Your task to perform on an android device: install app "Gboard" Image 0: 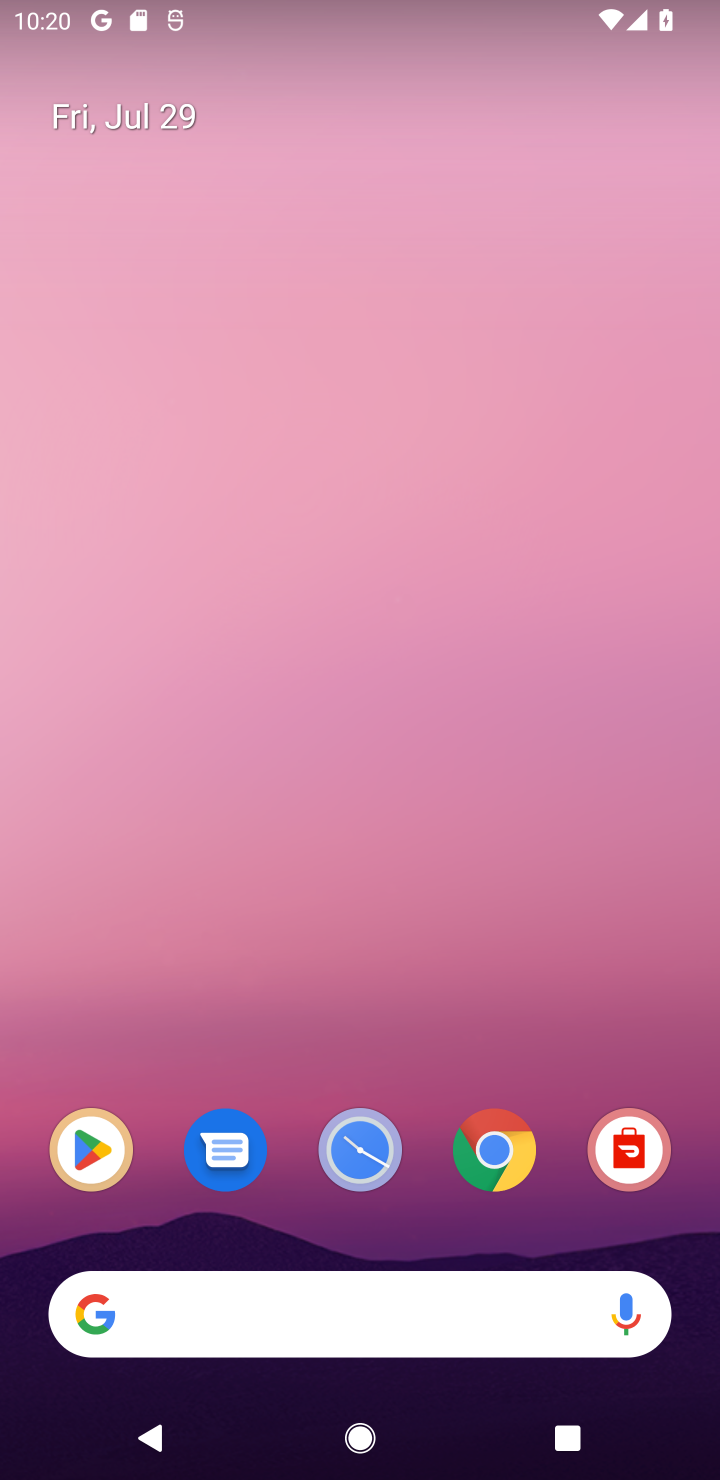
Step 0: click (111, 1142)
Your task to perform on an android device: install app "Gboard" Image 1: 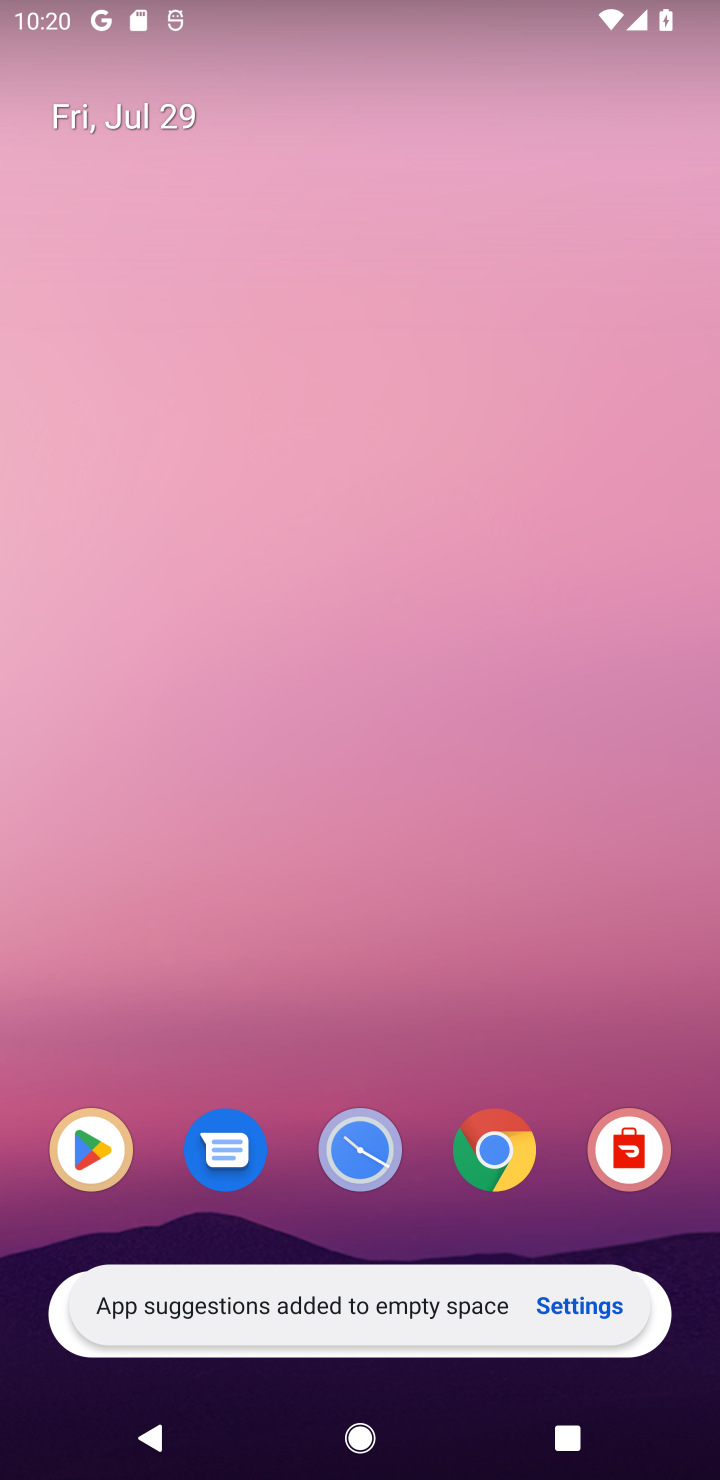
Step 1: click (88, 1154)
Your task to perform on an android device: install app "Gboard" Image 2: 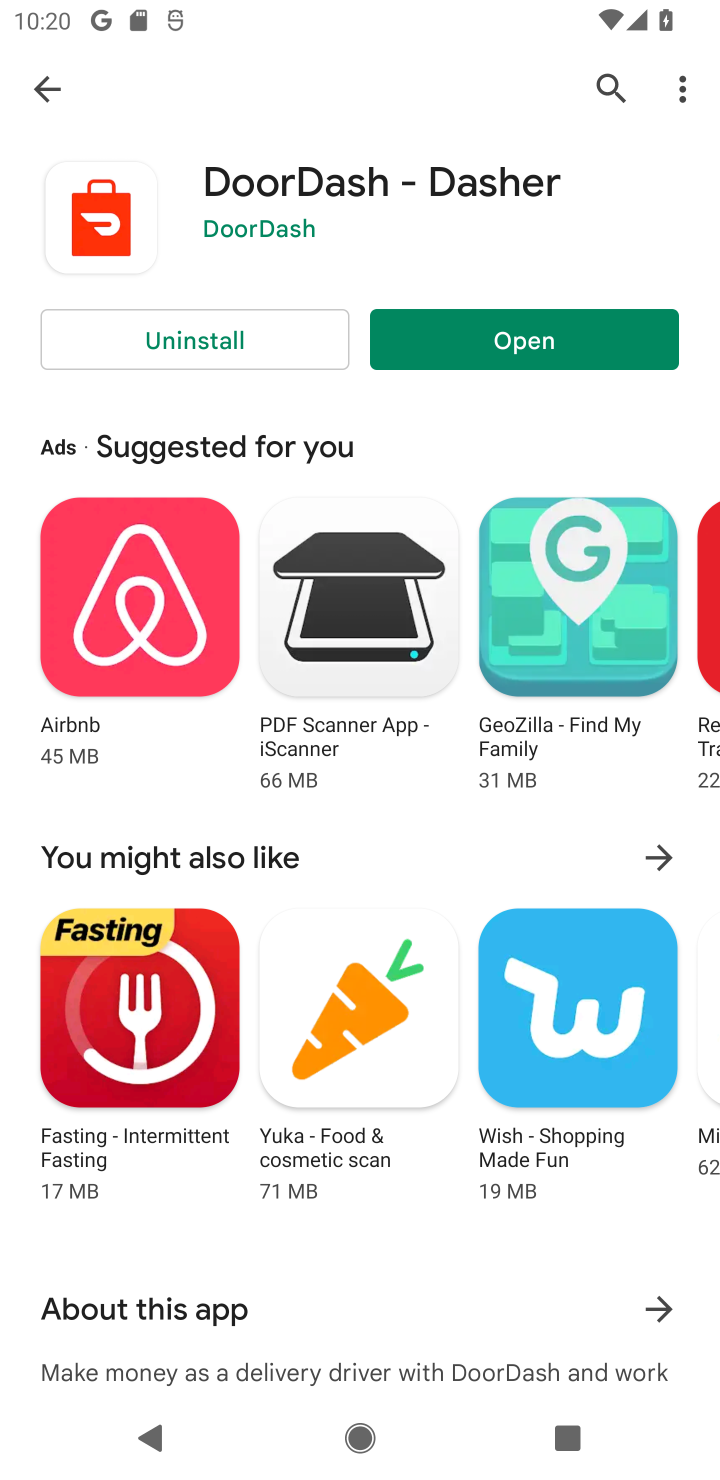
Step 2: click (611, 93)
Your task to perform on an android device: install app "Gboard" Image 3: 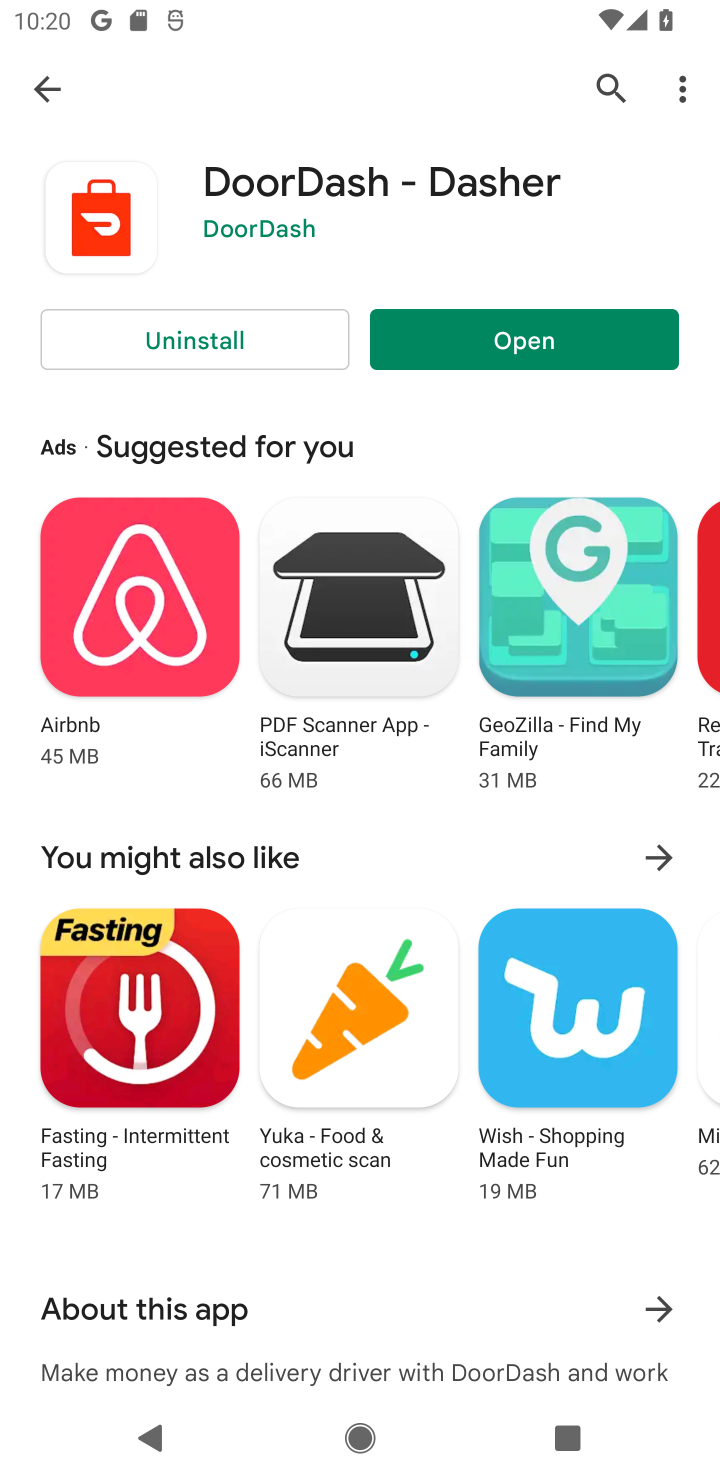
Step 3: click (613, 76)
Your task to perform on an android device: install app "Gboard" Image 4: 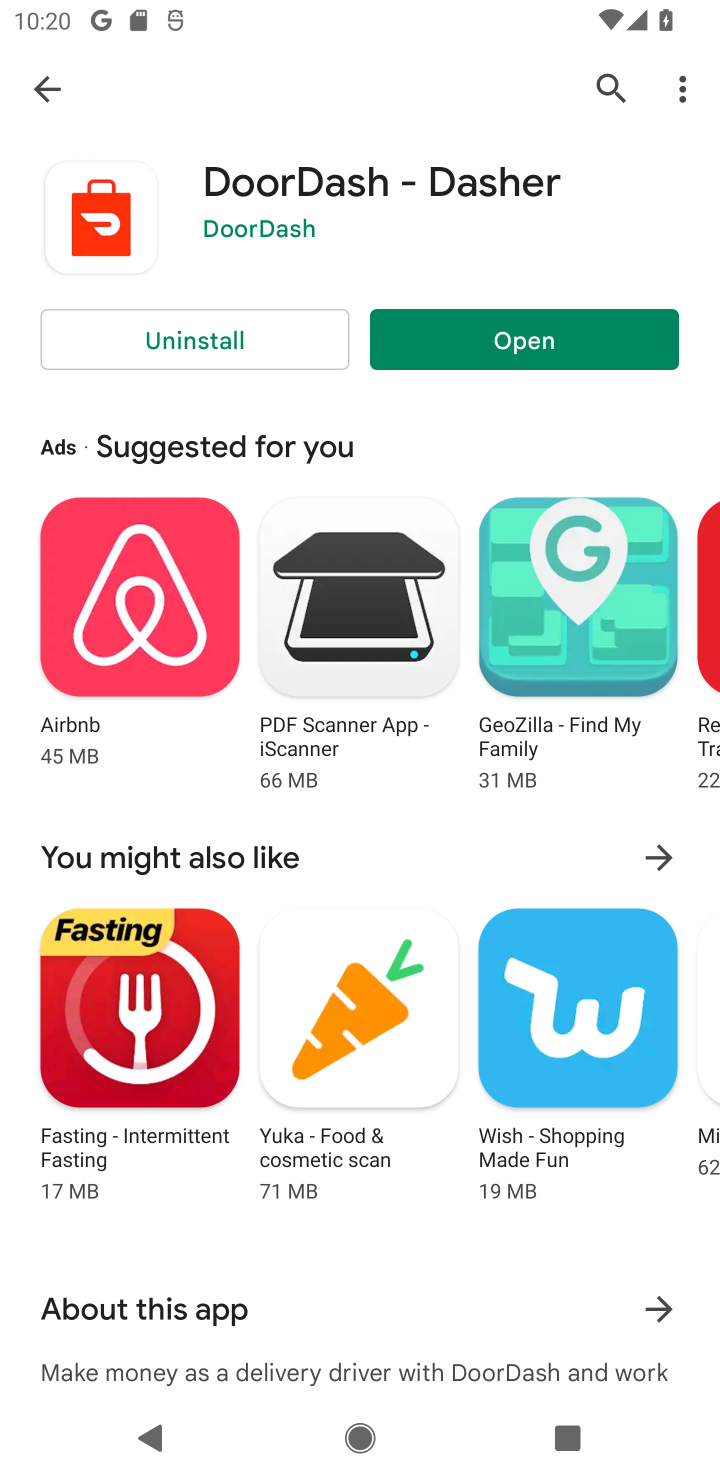
Step 4: click (62, 82)
Your task to perform on an android device: install app "Gboard" Image 5: 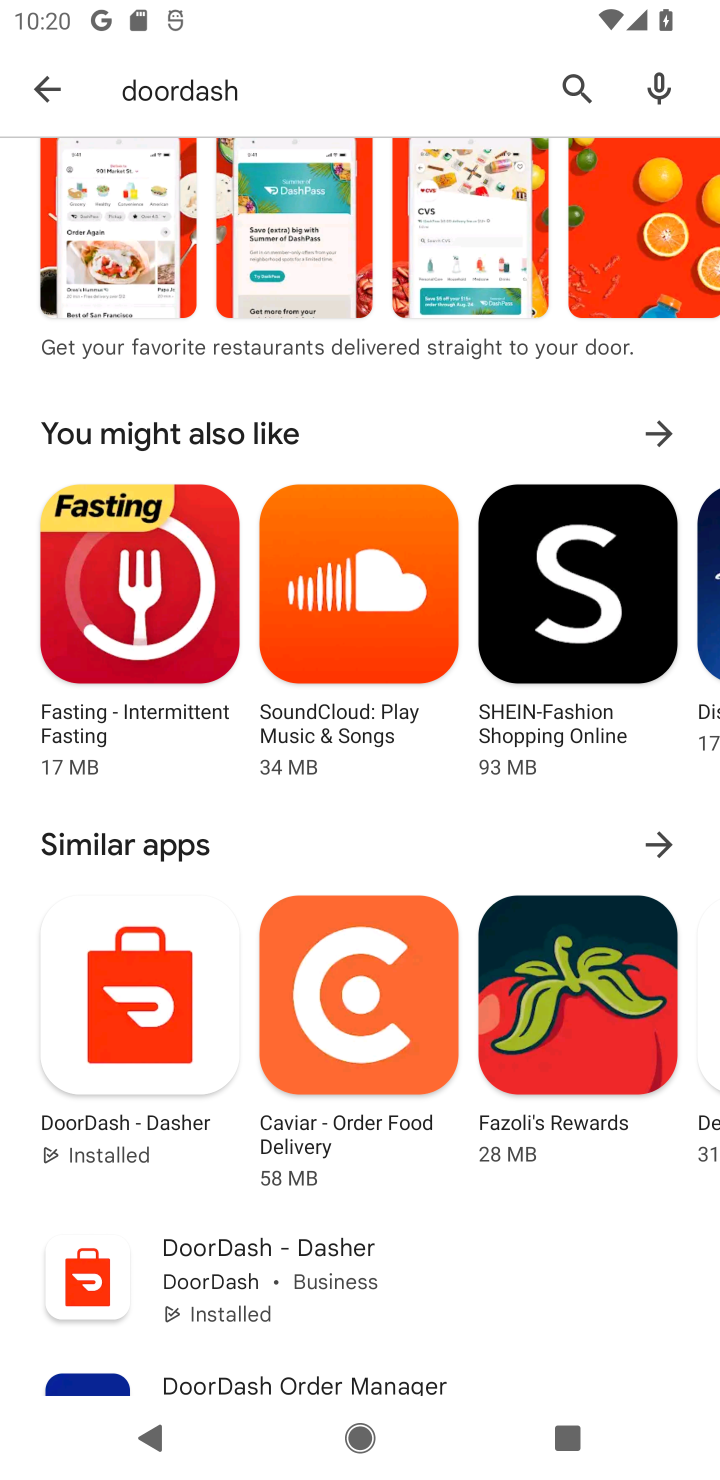
Step 5: click (580, 88)
Your task to perform on an android device: install app "Gboard" Image 6: 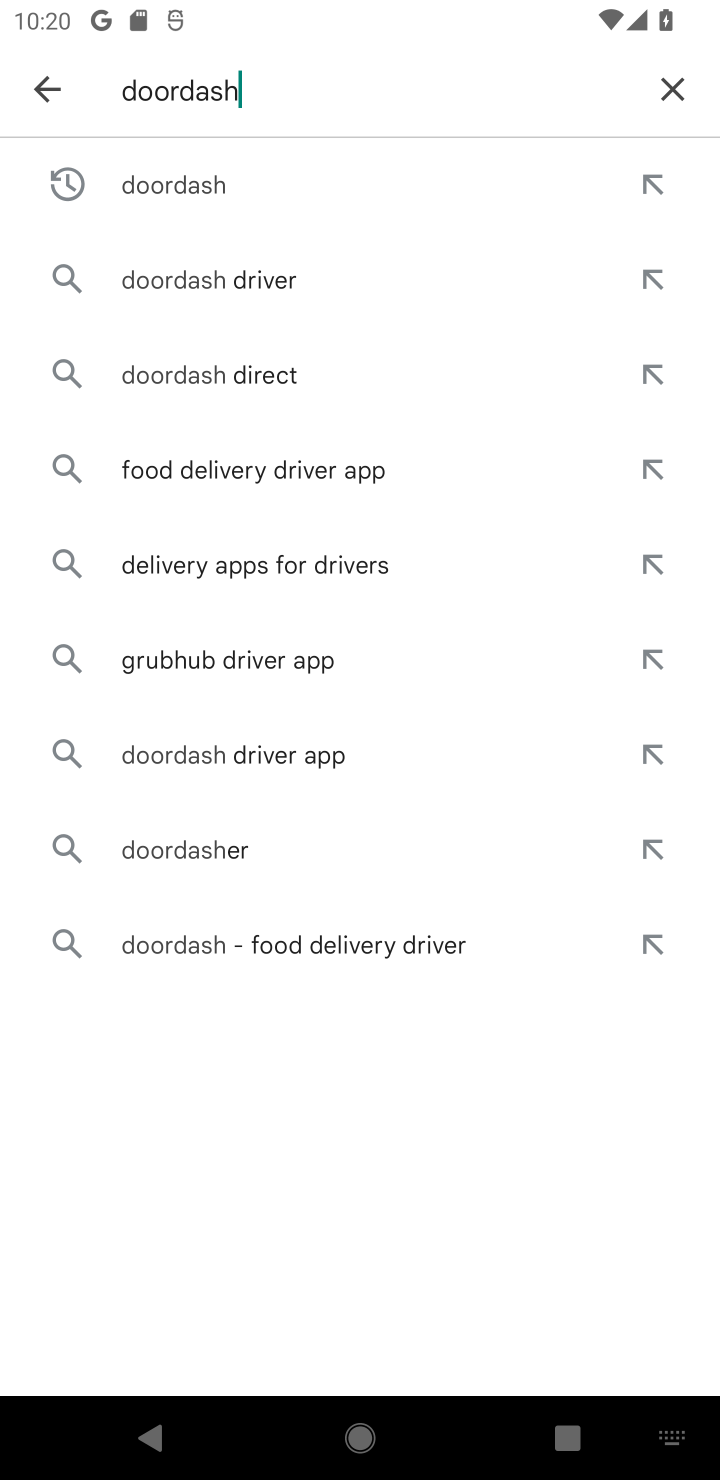
Step 6: click (678, 73)
Your task to perform on an android device: install app "Gboard" Image 7: 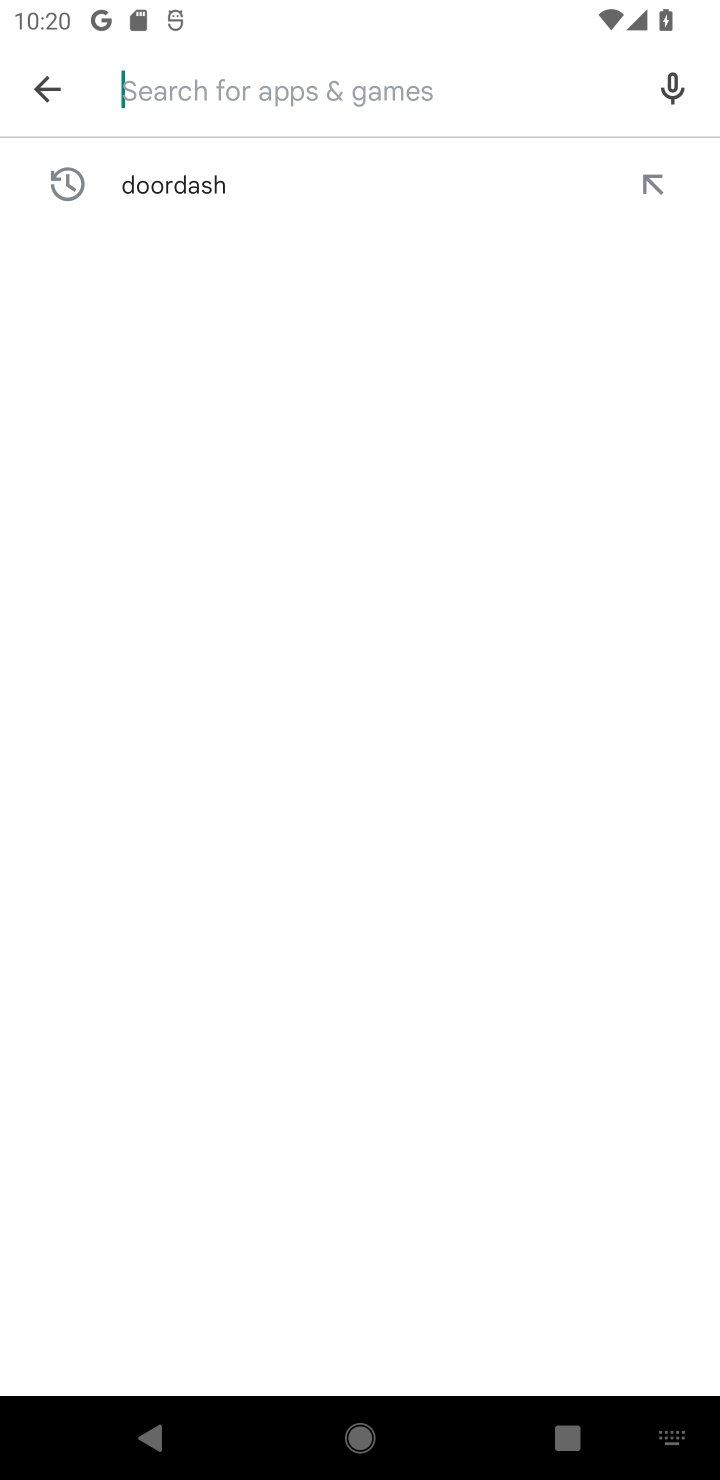
Step 7: click (199, 83)
Your task to perform on an android device: install app "Gboard" Image 8: 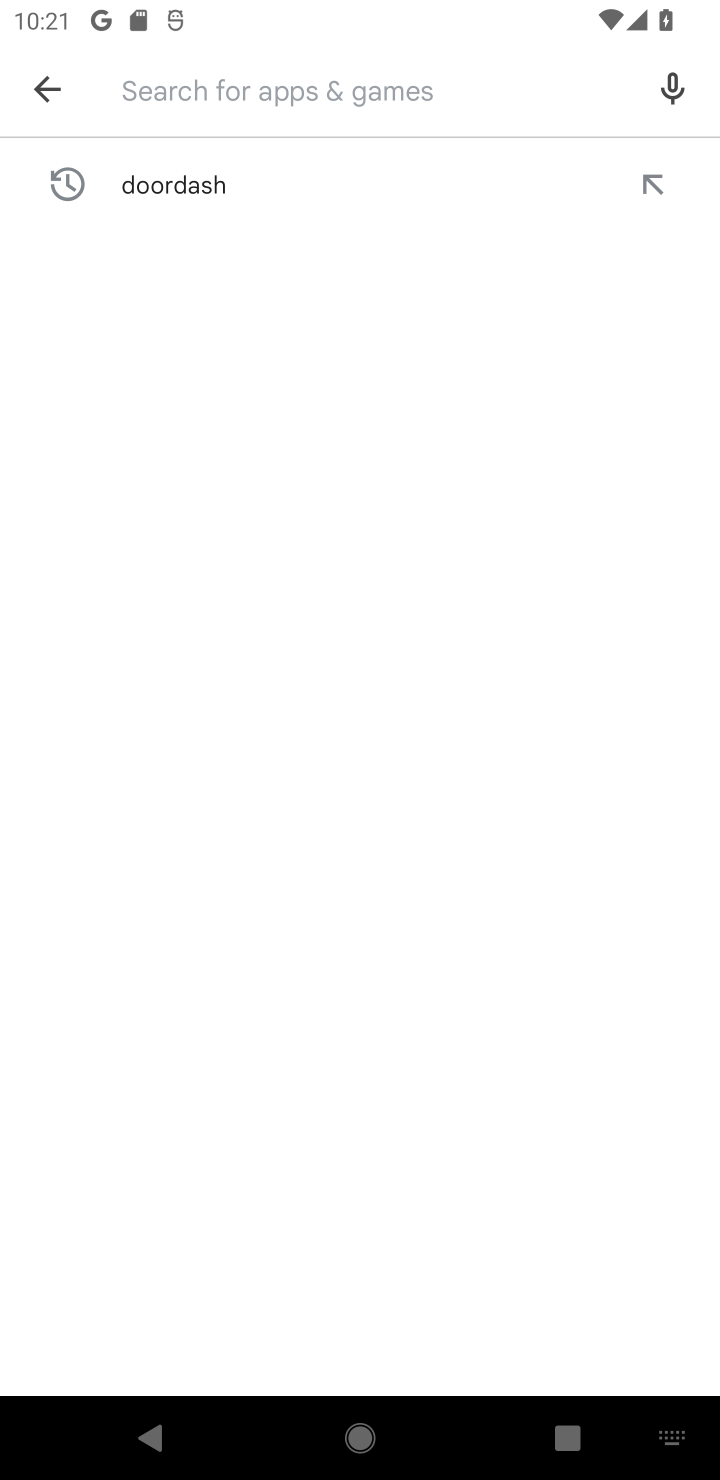
Step 8: type "gboard"
Your task to perform on an android device: install app "Gboard" Image 9: 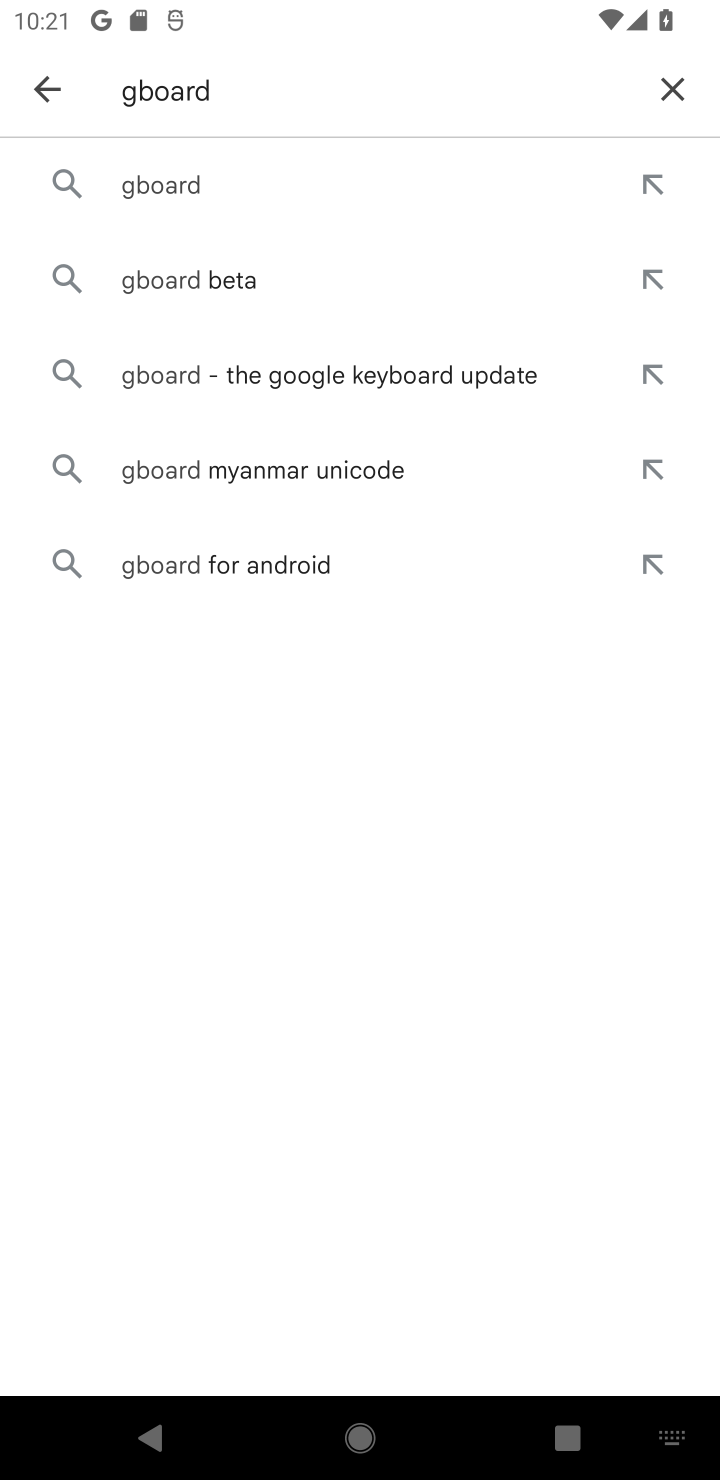
Step 9: click (188, 164)
Your task to perform on an android device: install app "Gboard" Image 10: 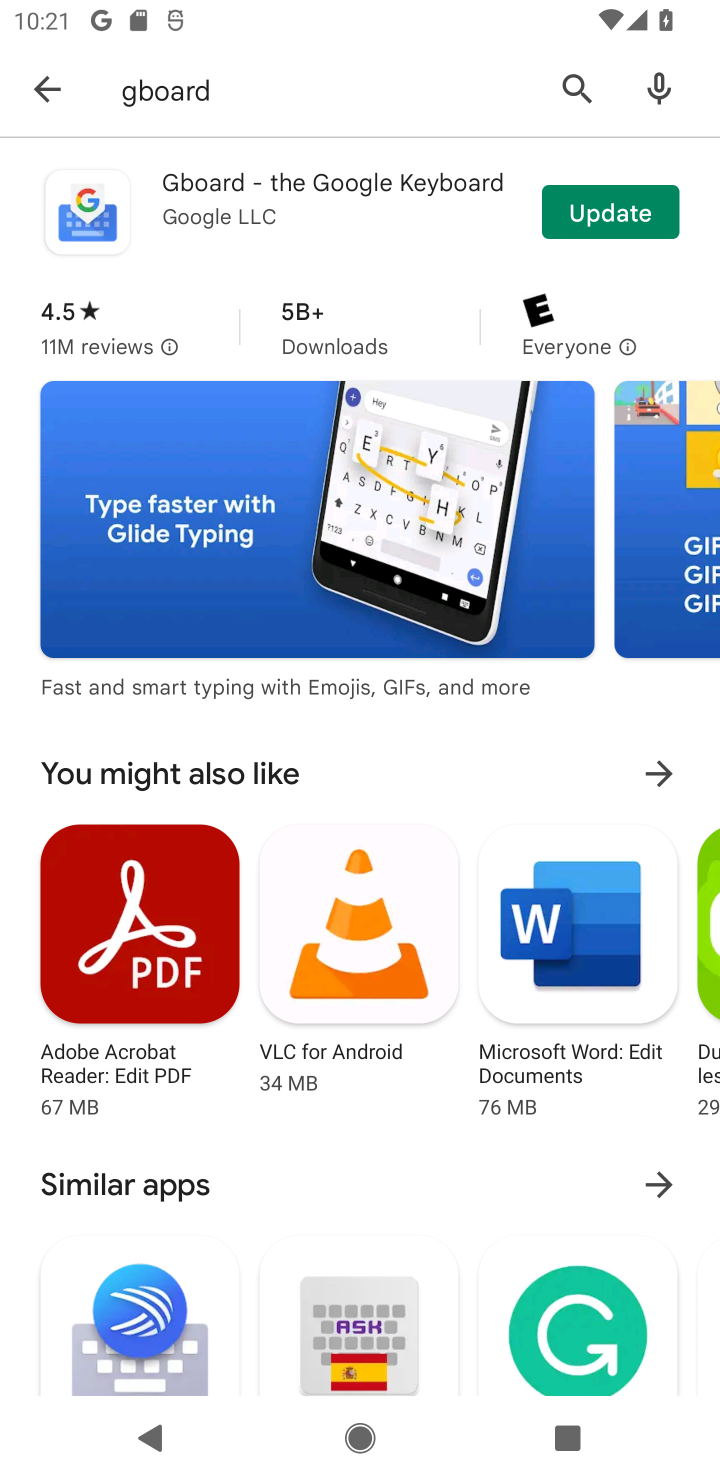
Step 10: task complete